Your task to perform on an android device: turn off notifications settings in the gmail app Image 0: 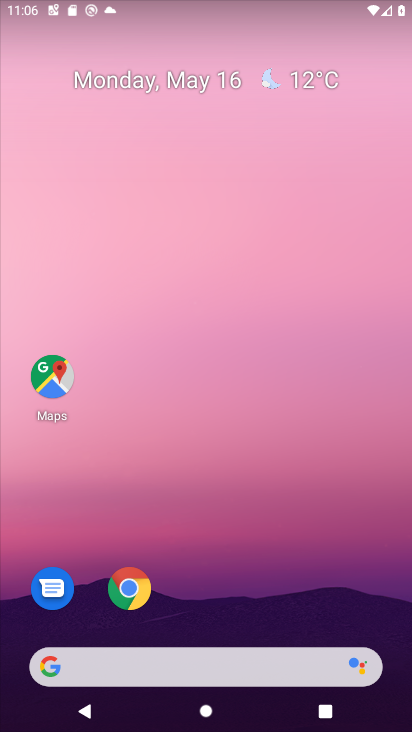
Step 0: drag from (240, 628) to (271, 43)
Your task to perform on an android device: turn off notifications settings in the gmail app Image 1: 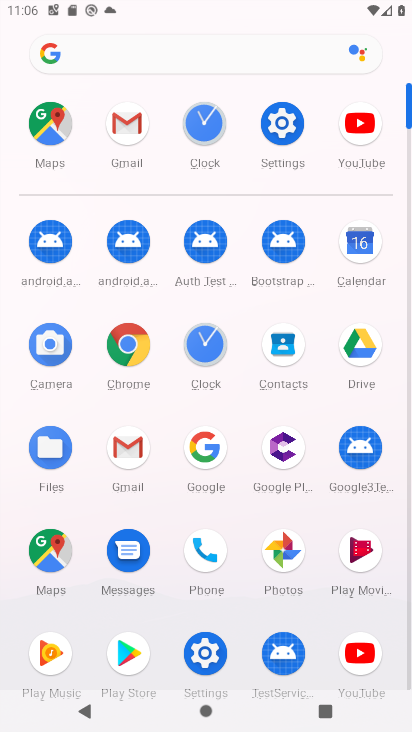
Step 1: click (124, 119)
Your task to perform on an android device: turn off notifications settings in the gmail app Image 2: 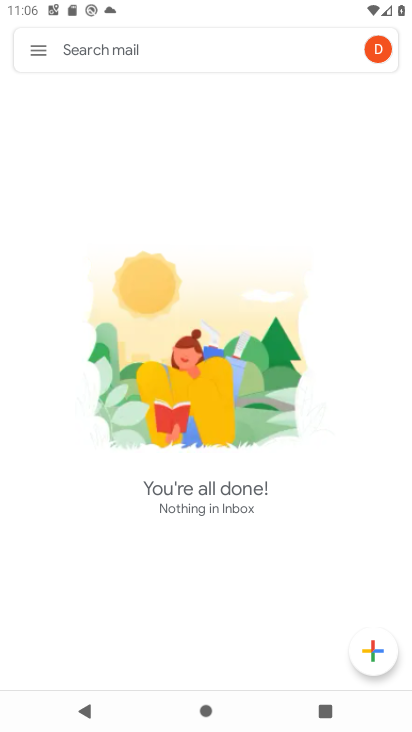
Step 2: click (32, 47)
Your task to perform on an android device: turn off notifications settings in the gmail app Image 3: 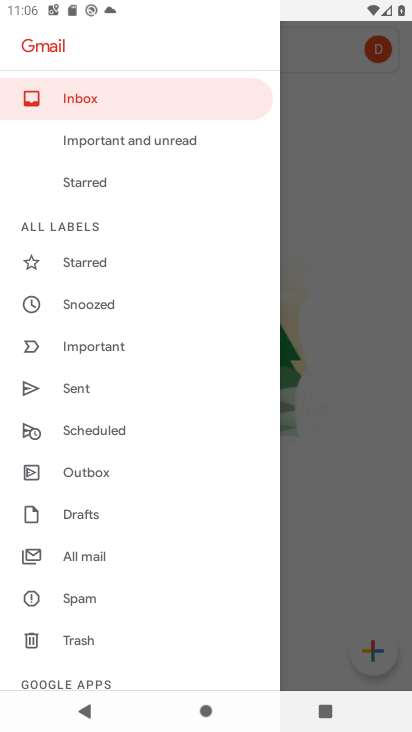
Step 3: drag from (115, 620) to (125, 120)
Your task to perform on an android device: turn off notifications settings in the gmail app Image 4: 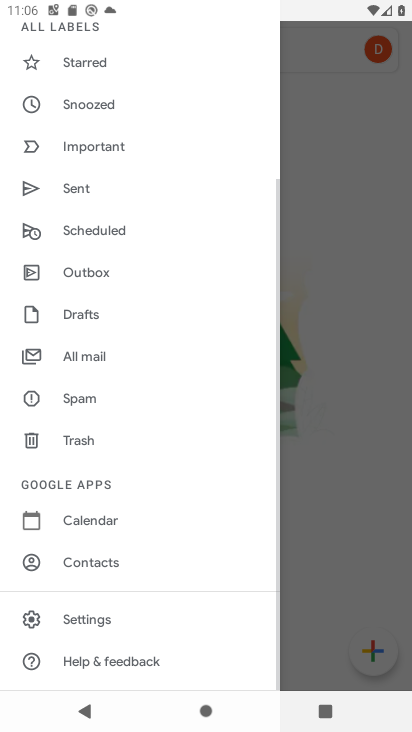
Step 4: click (108, 617)
Your task to perform on an android device: turn off notifications settings in the gmail app Image 5: 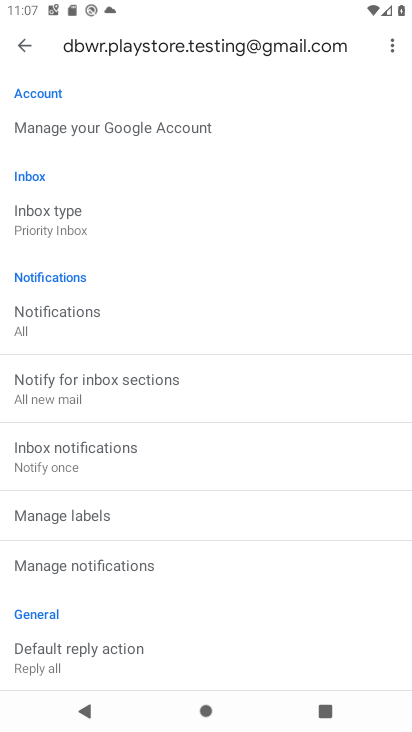
Step 5: click (22, 46)
Your task to perform on an android device: turn off notifications settings in the gmail app Image 6: 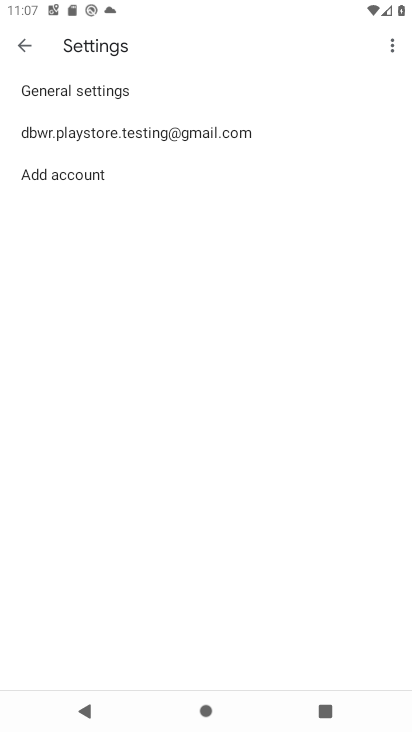
Step 6: click (121, 92)
Your task to perform on an android device: turn off notifications settings in the gmail app Image 7: 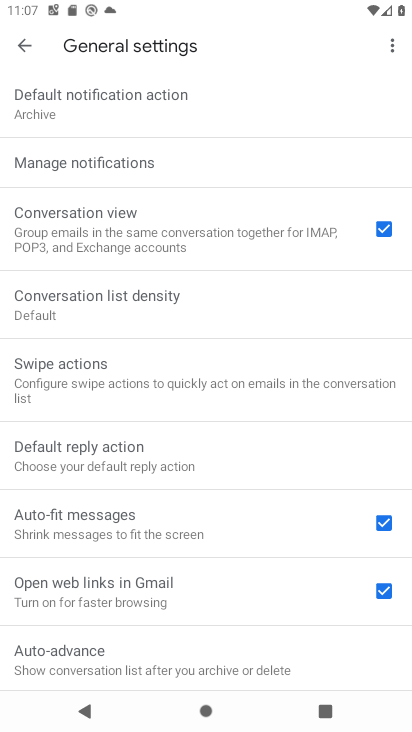
Step 7: click (166, 148)
Your task to perform on an android device: turn off notifications settings in the gmail app Image 8: 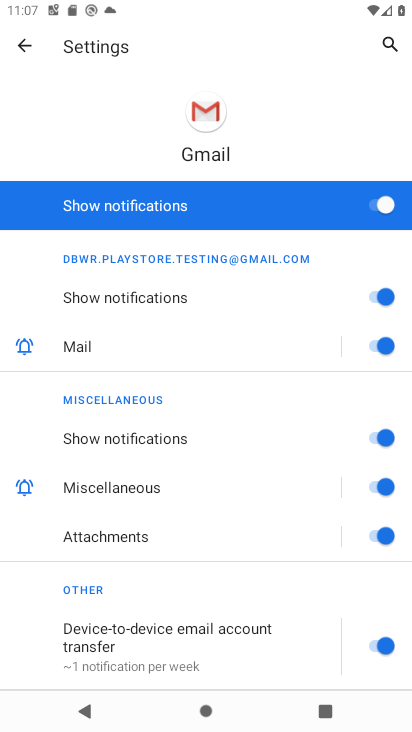
Step 8: click (369, 204)
Your task to perform on an android device: turn off notifications settings in the gmail app Image 9: 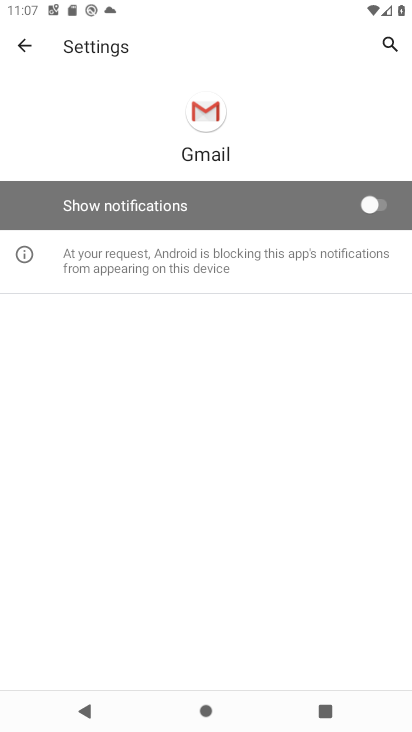
Step 9: task complete